Your task to perform on an android device: check out phone information Image 0: 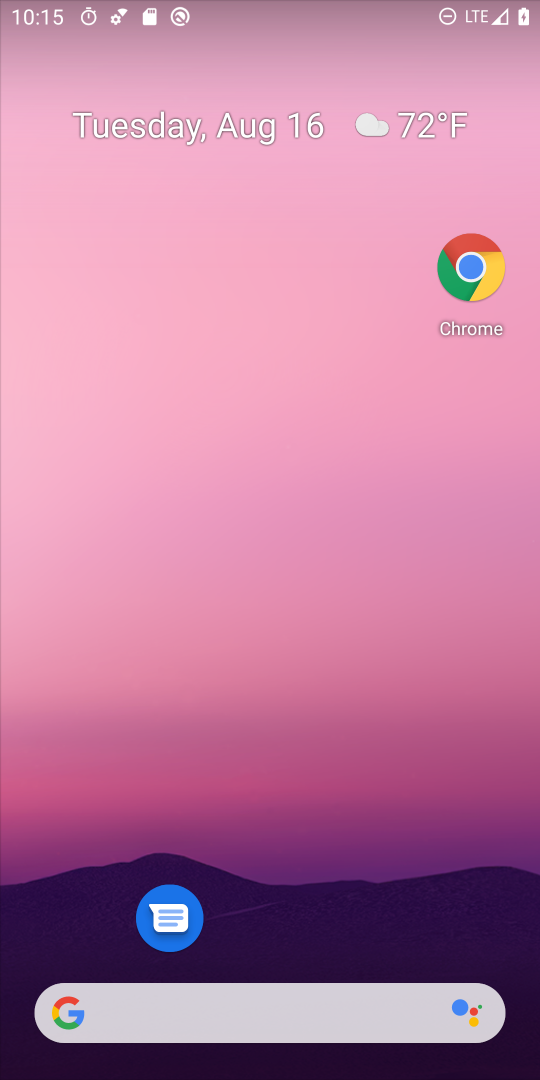
Step 0: drag from (346, 953) to (323, 345)
Your task to perform on an android device: check out phone information Image 1: 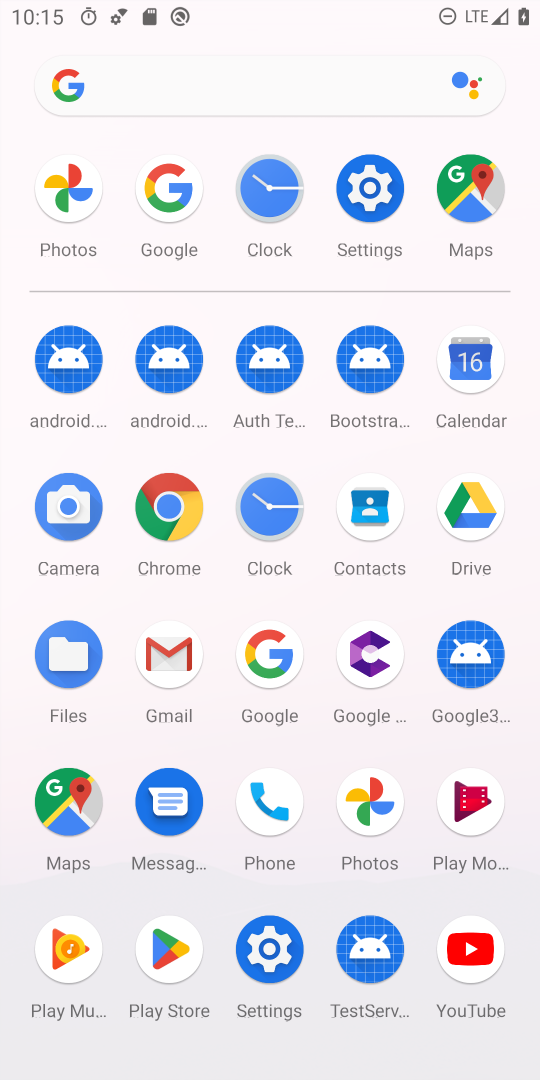
Step 1: click (376, 223)
Your task to perform on an android device: check out phone information Image 2: 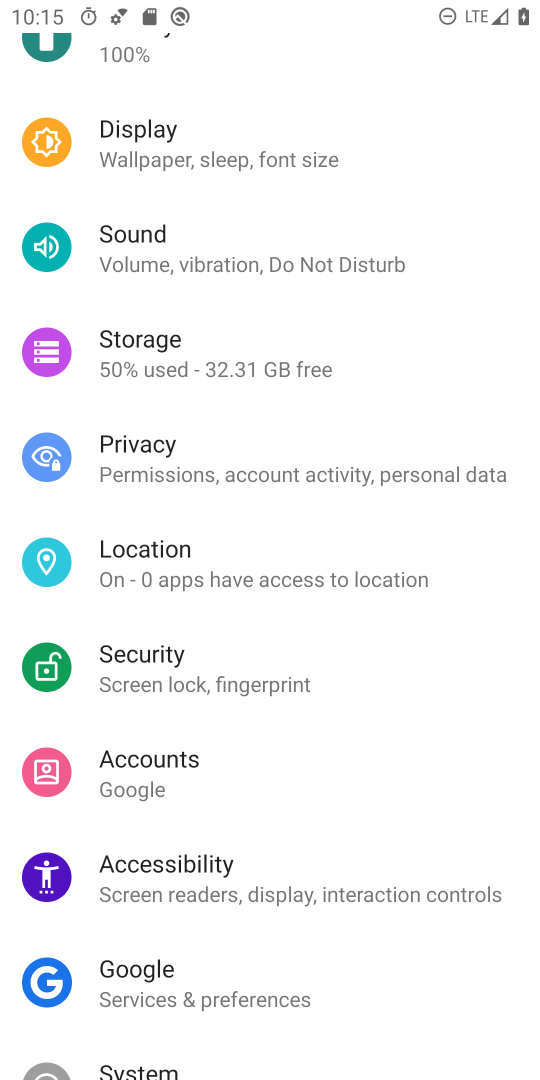
Step 2: drag from (258, 731) to (261, 294)
Your task to perform on an android device: check out phone information Image 3: 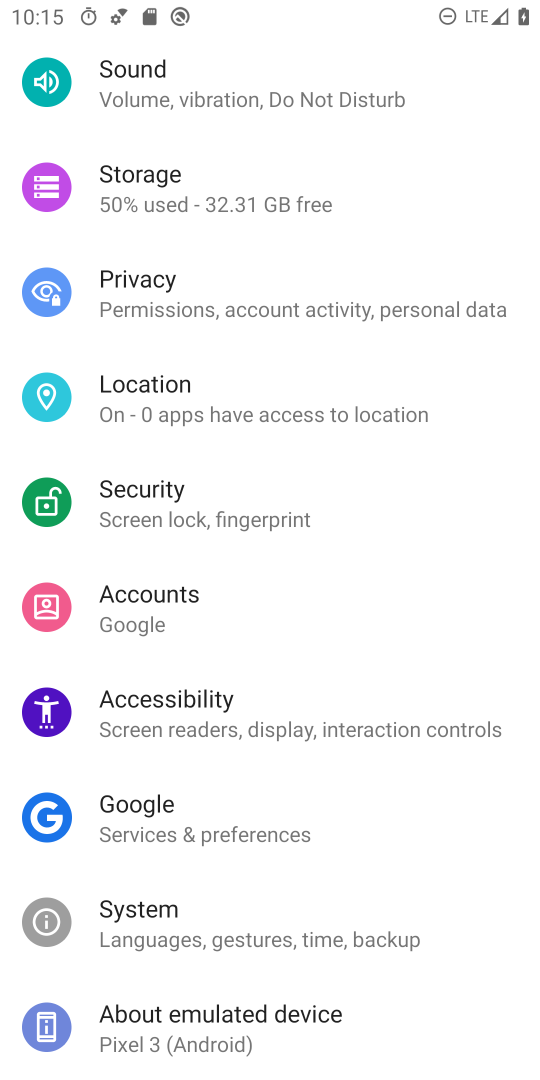
Step 3: click (218, 1012)
Your task to perform on an android device: check out phone information Image 4: 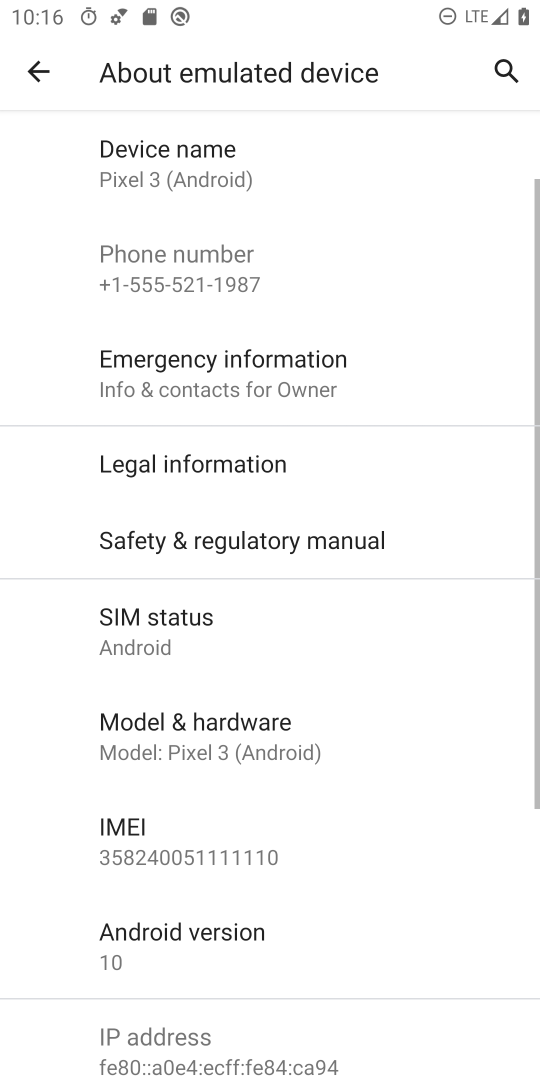
Step 4: task complete